Your task to perform on an android device: open app "Microsoft Authenticator" (install if not already installed) Image 0: 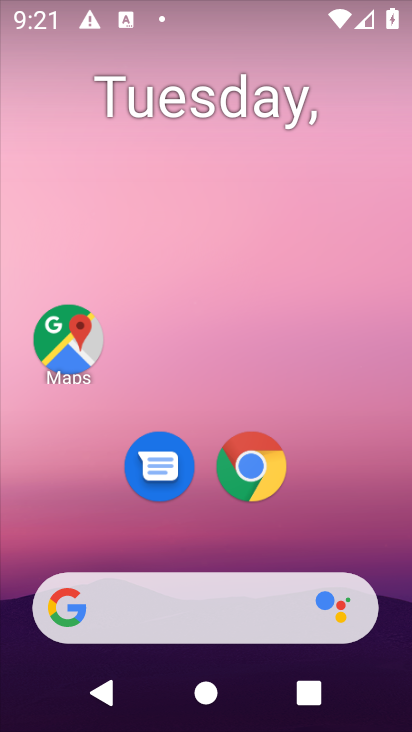
Step 0: drag from (80, 532) to (161, 19)
Your task to perform on an android device: open app "Microsoft Authenticator" (install if not already installed) Image 1: 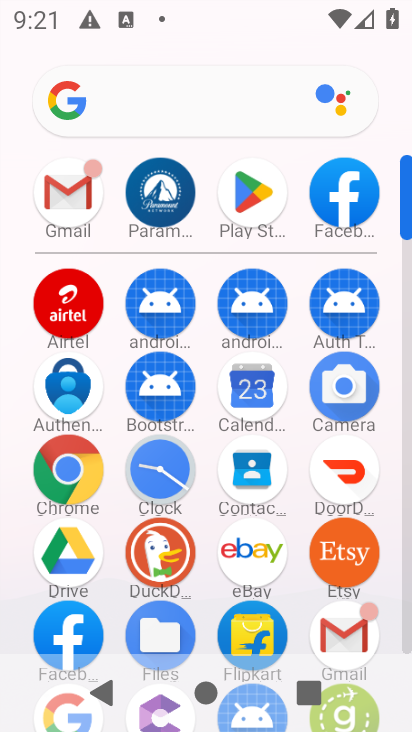
Step 1: click (261, 195)
Your task to perform on an android device: open app "Microsoft Authenticator" (install if not already installed) Image 2: 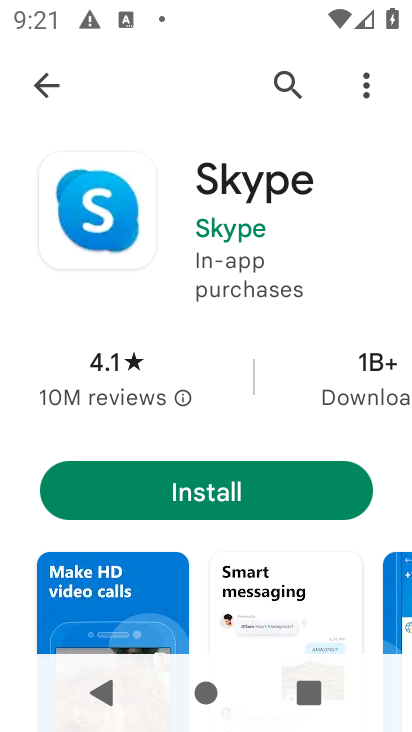
Step 2: click (264, 62)
Your task to perform on an android device: open app "Microsoft Authenticator" (install if not already installed) Image 3: 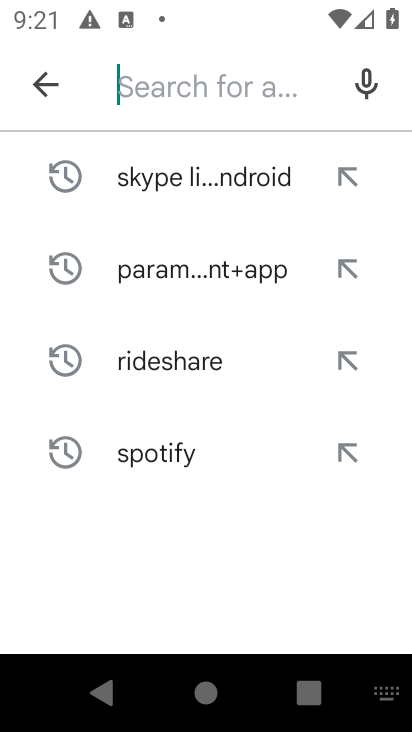
Step 3: click (144, 79)
Your task to perform on an android device: open app "Microsoft Authenticator" (install if not already installed) Image 4: 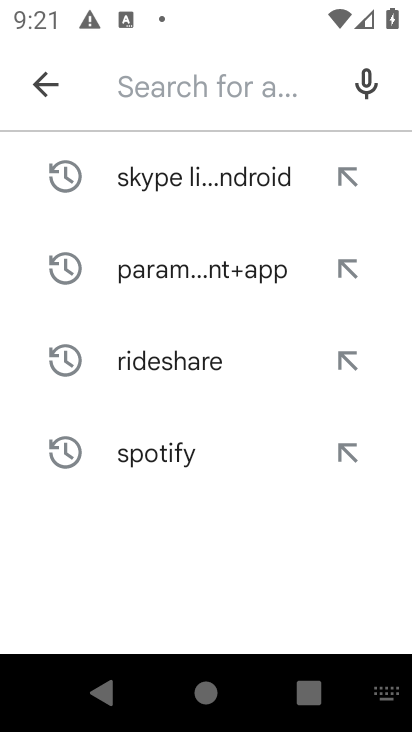
Step 4: type "Microsoft Authenticator"
Your task to perform on an android device: open app "Microsoft Authenticator" (install if not already installed) Image 5: 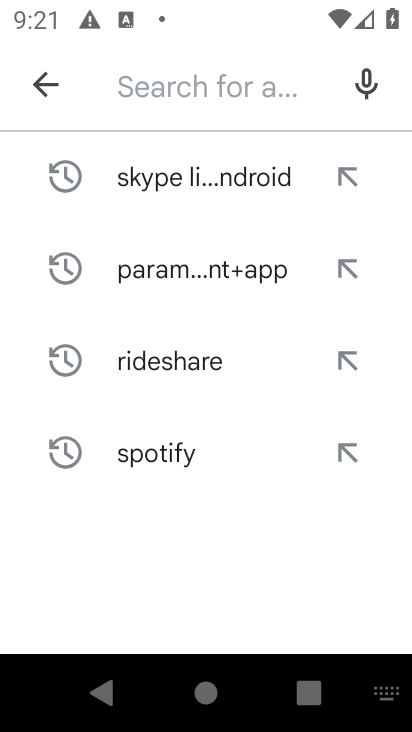
Step 5: click (143, 554)
Your task to perform on an android device: open app "Microsoft Authenticator" (install if not already installed) Image 6: 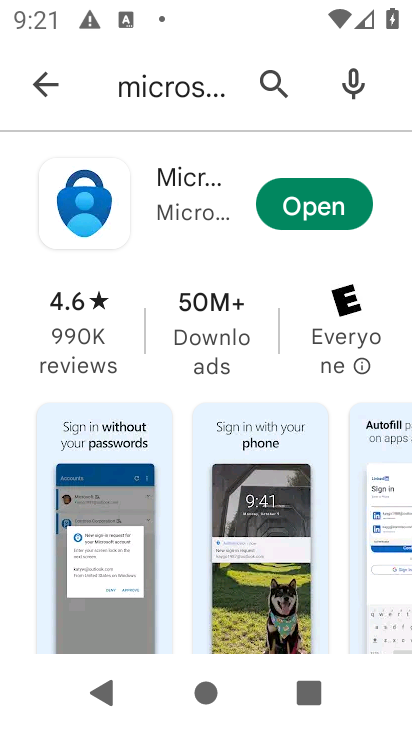
Step 6: click (297, 197)
Your task to perform on an android device: open app "Microsoft Authenticator" (install if not already installed) Image 7: 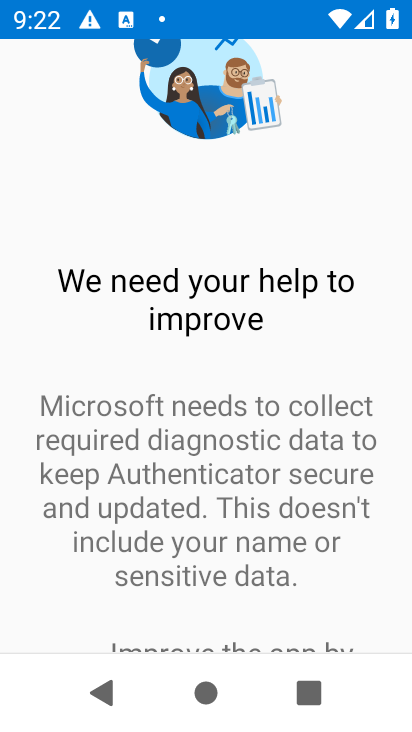
Step 7: task complete